Your task to perform on an android device: Open Google Image 0: 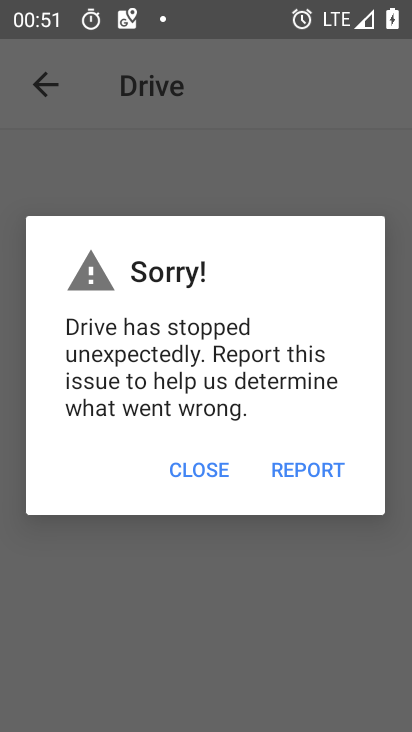
Step 0: press home button
Your task to perform on an android device: Open Google Image 1: 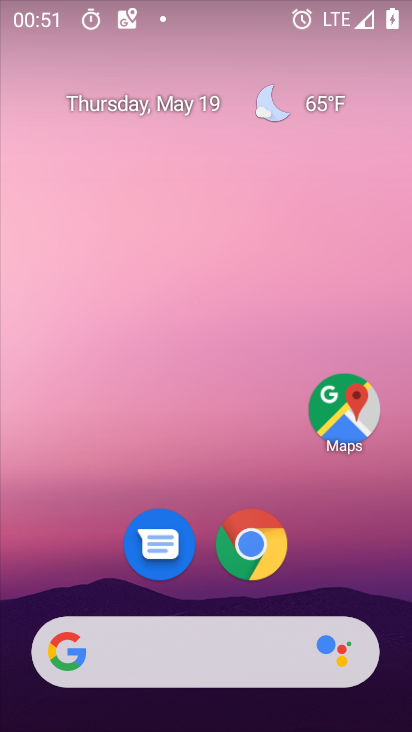
Step 1: drag from (364, 546) to (341, 62)
Your task to perform on an android device: Open Google Image 2: 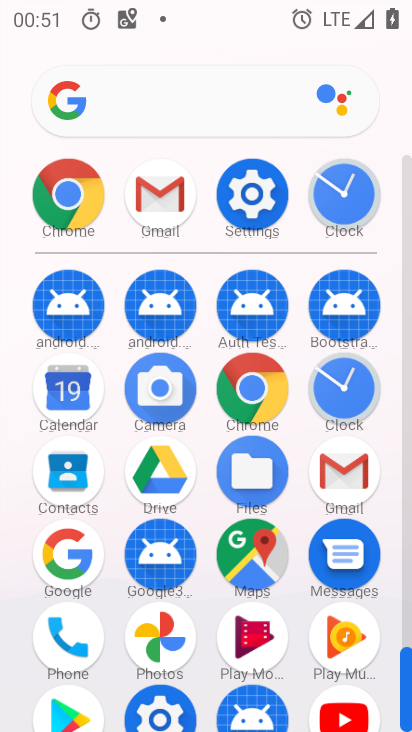
Step 2: drag from (196, 620) to (202, 418)
Your task to perform on an android device: Open Google Image 3: 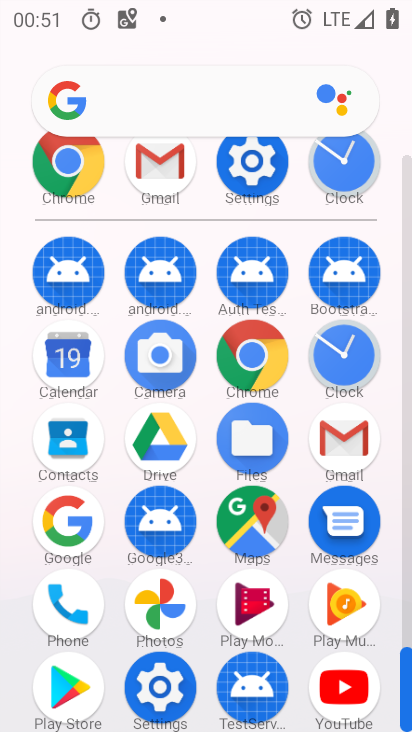
Step 3: click (69, 535)
Your task to perform on an android device: Open Google Image 4: 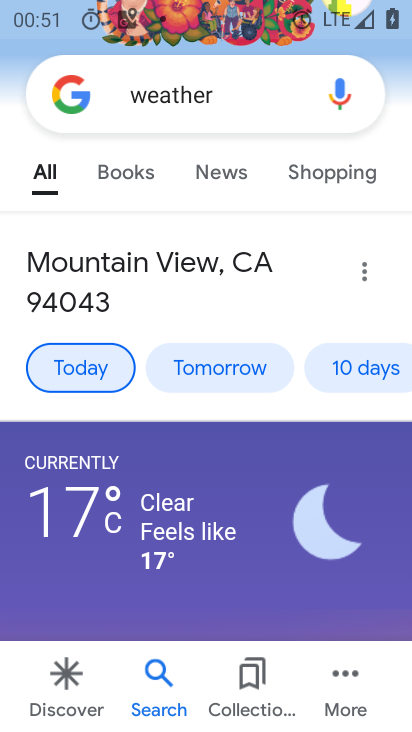
Step 4: task complete